Your task to perform on an android device: Open Google Chrome Image 0: 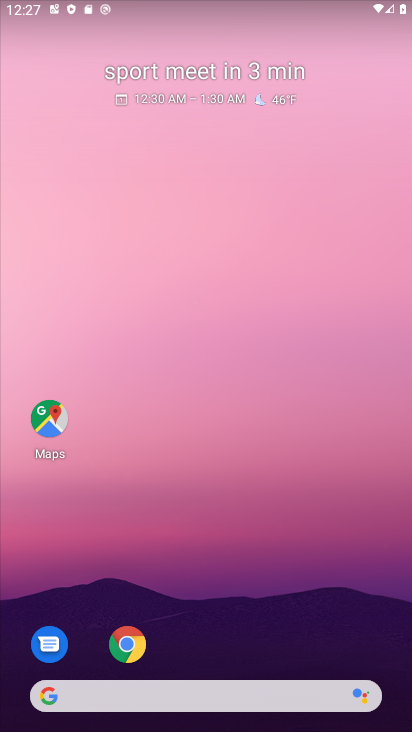
Step 0: click (130, 658)
Your task to perform on an android device: Open Google Chrome Image 1: 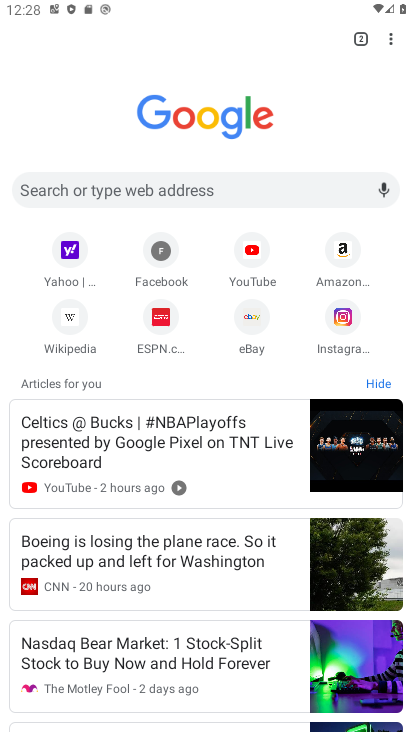
Step 1: task complete